Your task to perform on an android device: Check the news Image 0: 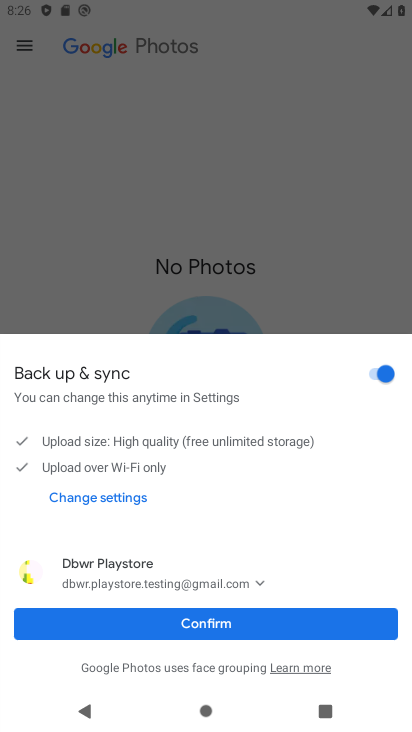
Step 0: press back button
Your task to perform on an android device: Check the news Image 1: 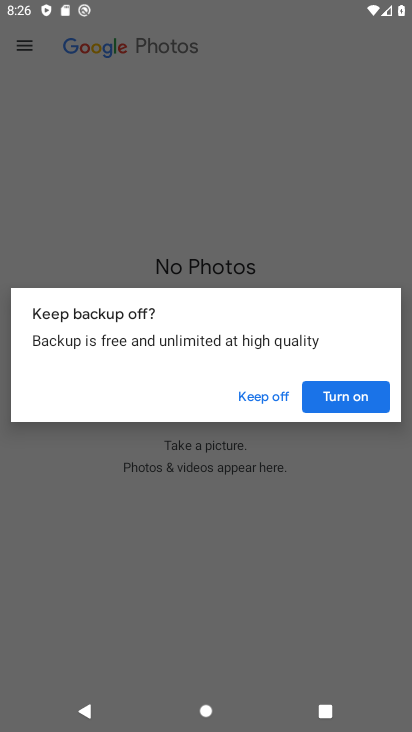
Step 1: press back button
Your task to perform on an android device: Check the news Image 2: 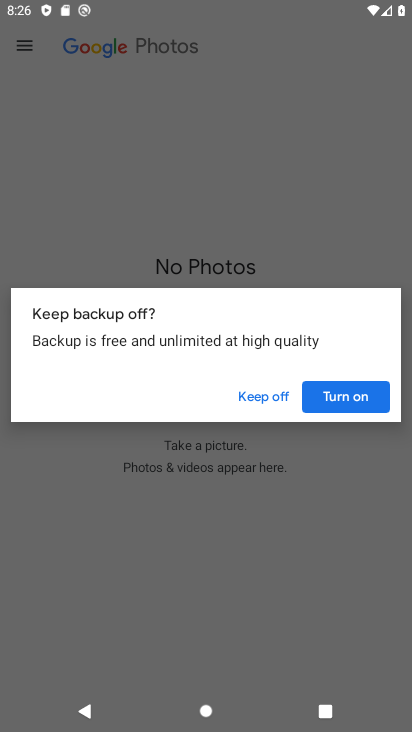
Step 2: press back button
Your task to perform on an android device: Check the news Image 3: 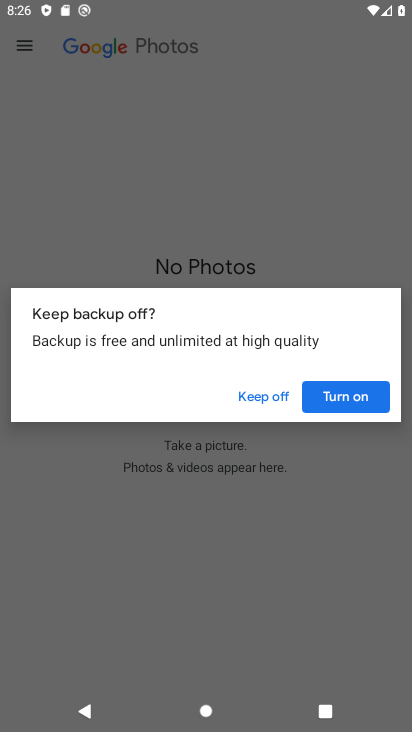
Step 3: press home button
Your task to perform on an android device: Check the news Image 4: 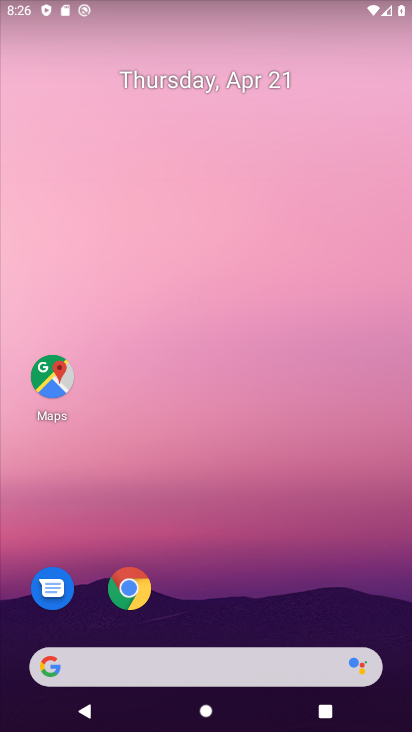
Step 4: drag from (266, 552) to (194, 40)
Your task to perform on an android device: Check the news Image 5: 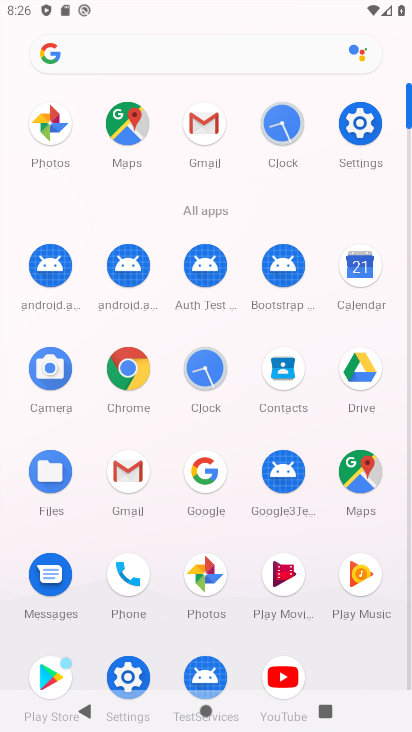
Step 5: drag from (8, 539) to (15, 255)
Your task to perform on an android device: Check the news Image 6: 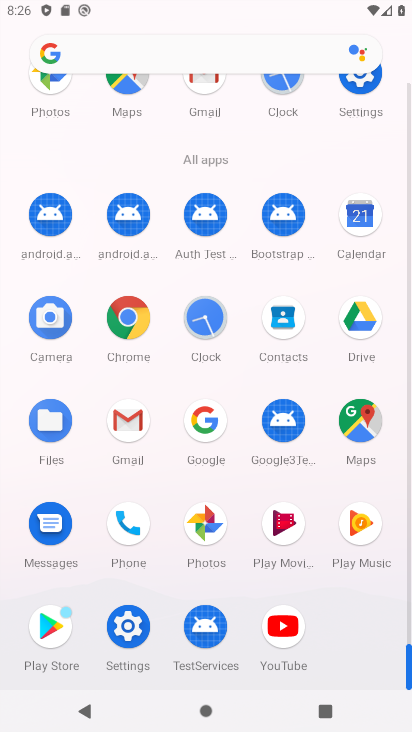
Step 6: drag from (17, 184) to (14, 254)
Your task to perform on an android device: Check the news Image 7: 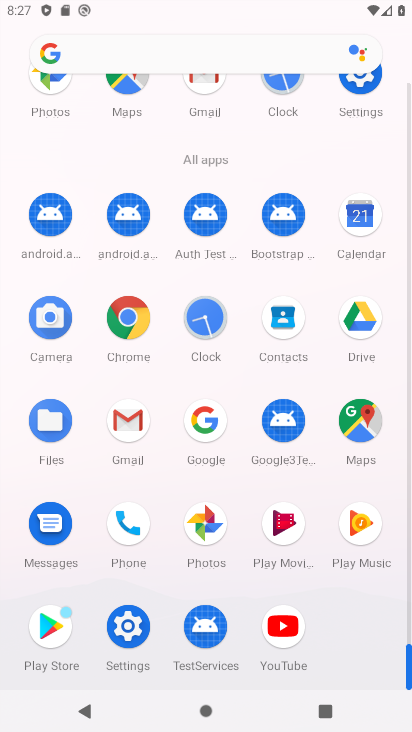
Step 7: click (130, 46)
Your task to perform on an android device: Check the news Image 8: 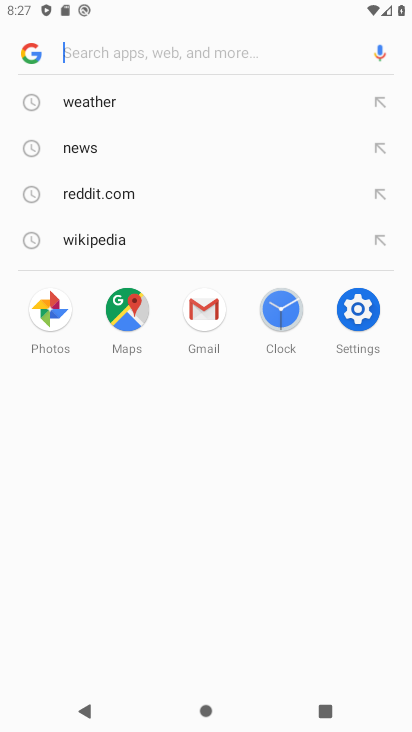
Step 8: click (96, 142)
Your task to perform on an android device: Check the news Image 9: 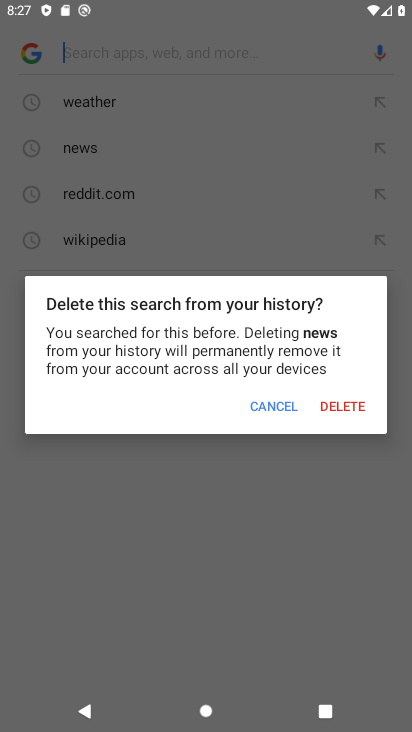
Step 9: click (275, 404)
Your task to perform on an android device: Check the news Image 10: 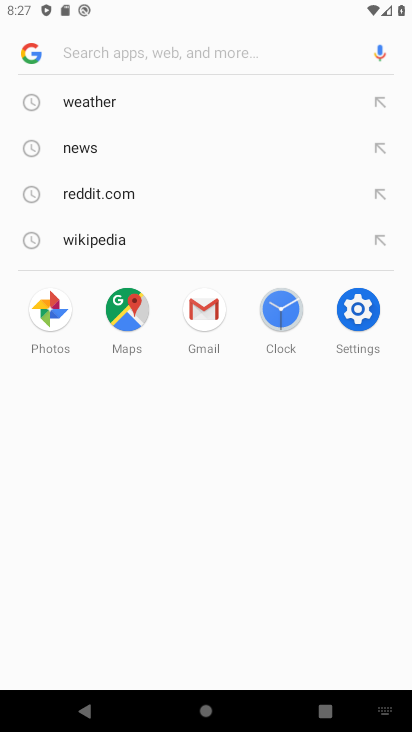
Step 10: click (383, 145)
Your task to perform on an android device: Check the news Image 11: 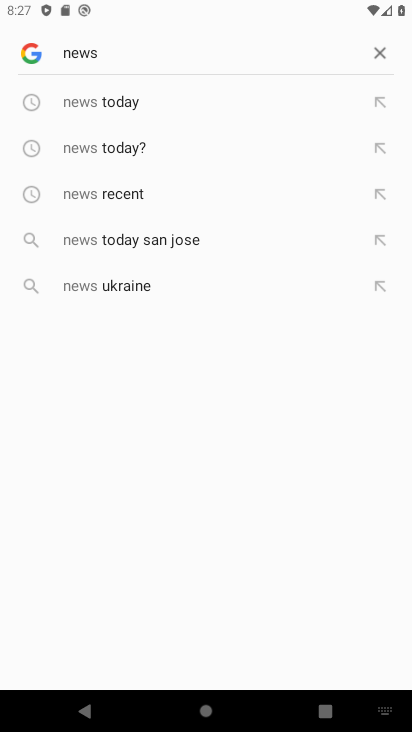
Step 11: click (136, 100)
Your task to perform on an android device: Check the news Image 12: 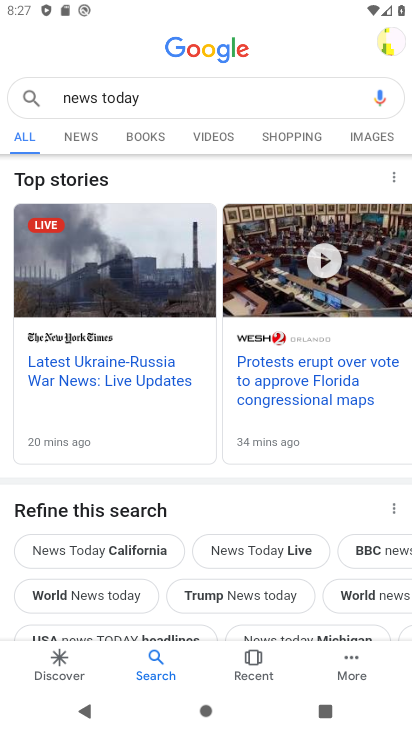
Step 12: task complete